Your task to perform on an android device: Open Youtube and go to the subscriptions tab Image 0: 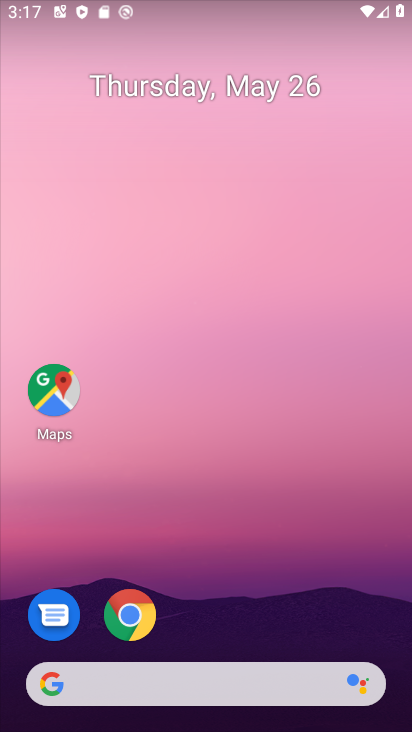
Step 0: drag from (308, 616) to (283, 42)
Your task to perform on an android device: Open Youtube and go to the subscriptions tab Image 1: 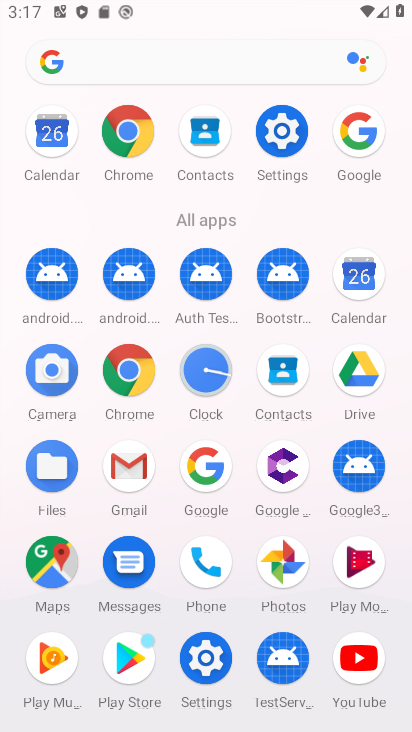
Step 1: click (372, 656)
Your task to perform on an android device: Open Youtube and go to the subscriptions tab Image 2: 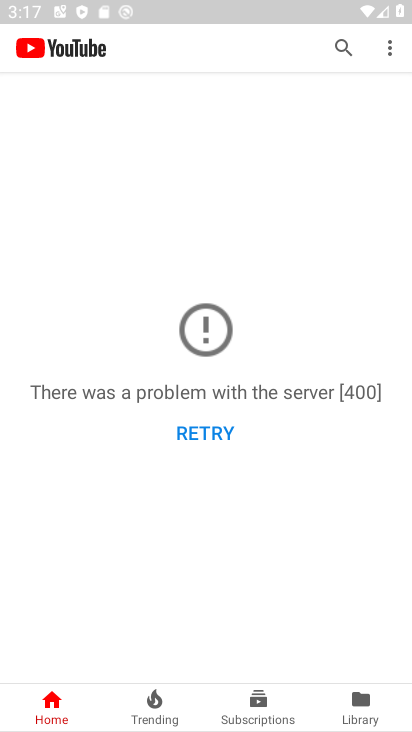
Step 2: click (245, 693)
Your task to perform on an android device: Open Youtube and go to the subscriptions tab Image 3: 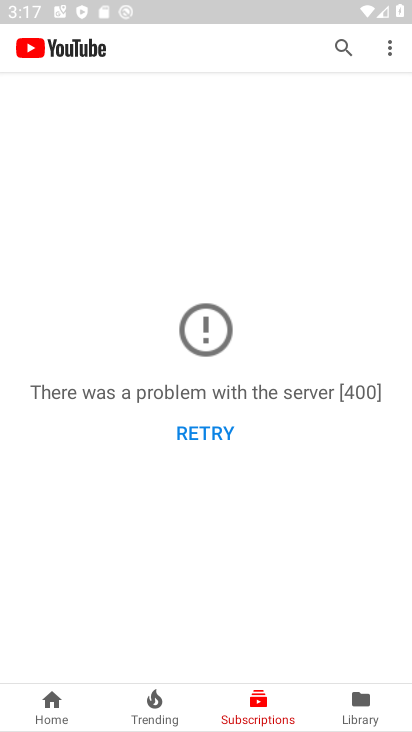
Step 3: task complete